Your task to perform on an android device: turn off smart reply in the gmail app Image 0: 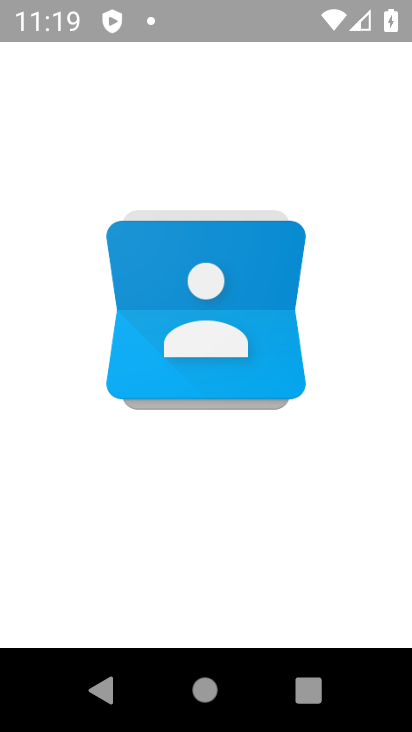
Step 0: drag from (342, 522) to (315, 366)
Your task to perform on an android device: turn off smart reply in the gmail app Image 1: 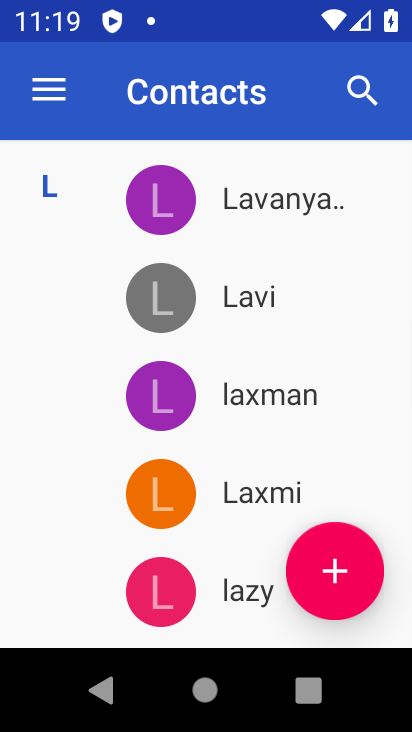
Step 1: press home button
Your task to perform on an android device: turn off smart reply in the gmail app Image 2: 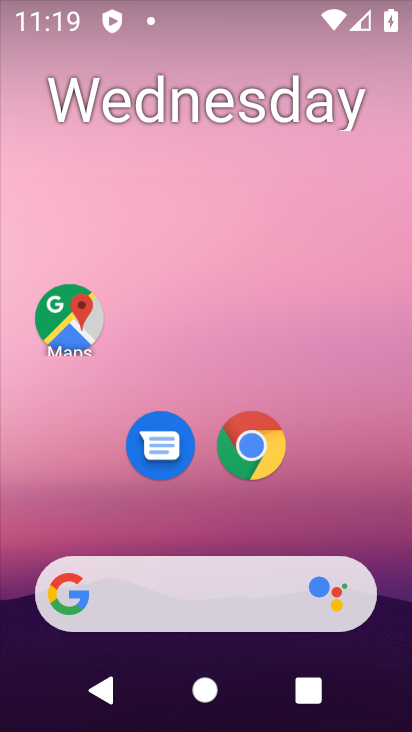
Step 2: drag from (317, 468) to (289, 186)
Your task to perform on an android device: turn off smart reply in the gmail app Image 3: 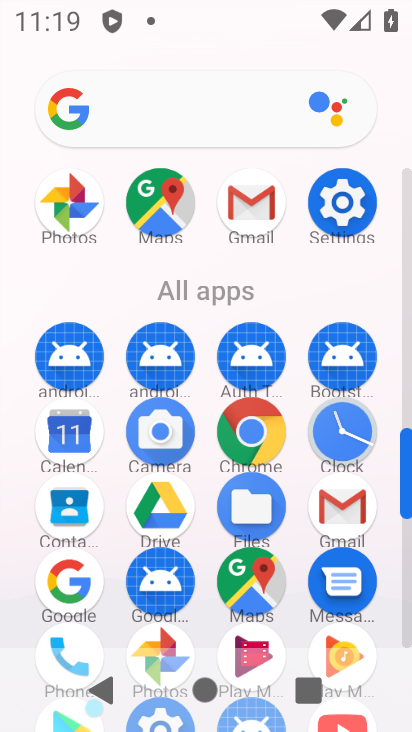
Step 3: click (352, 205)
Your task to perform on an android device: turn off smart reply in the gmail app Image 4: 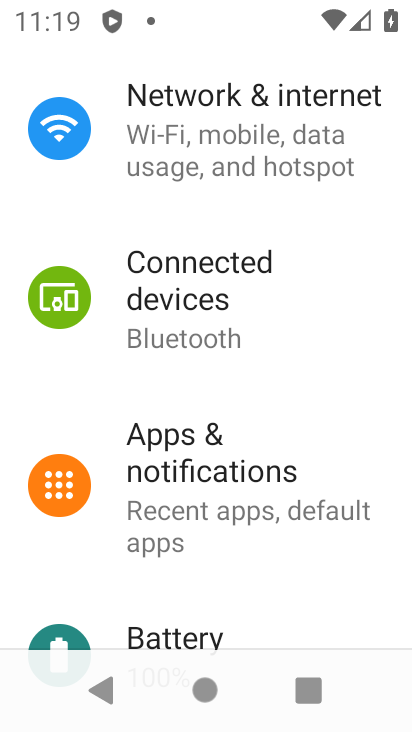
Step 4: press back button
Your task to perform on an android device: turn off smart reply in the gmail app Image 5: 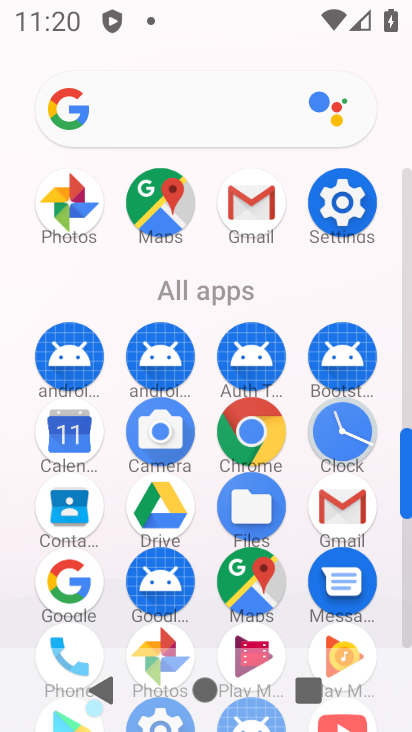
Step 5: click (333, 508)
Your task to perform on an android device: turn off smart reply in the gmail app Image 6: 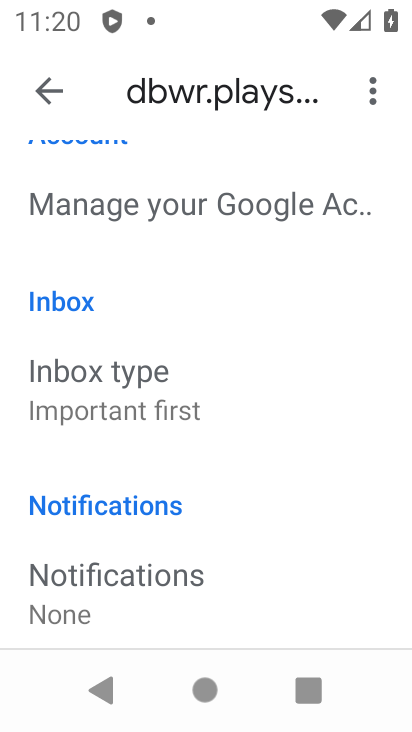
Step 6: press back button
Your task to perform on an android device: turn off smart reply in the gmail app Image 7: 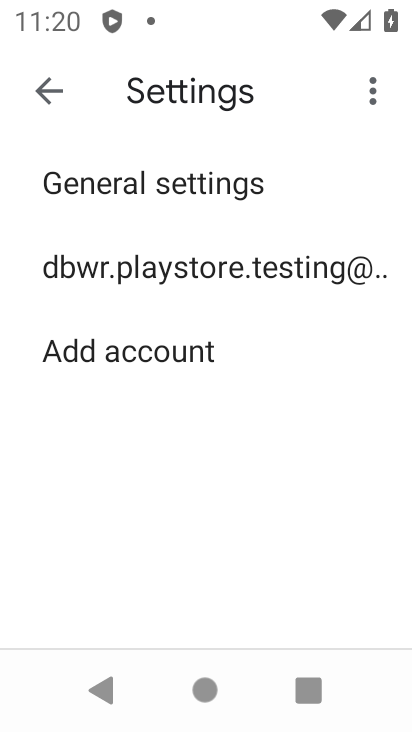
Step 7: press back button
Your task to perform on an android device: turn off smart reply in the gmail app Image 8: 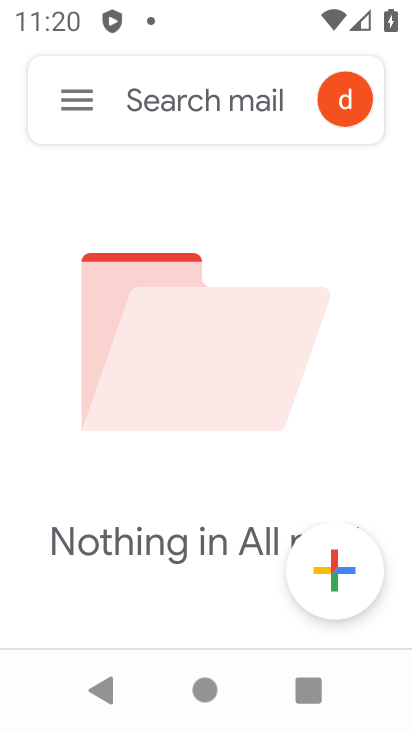
Step 8: click (82, 85)
Your task to perform on an android device: turn off smart reply in the gmail app Image 9: 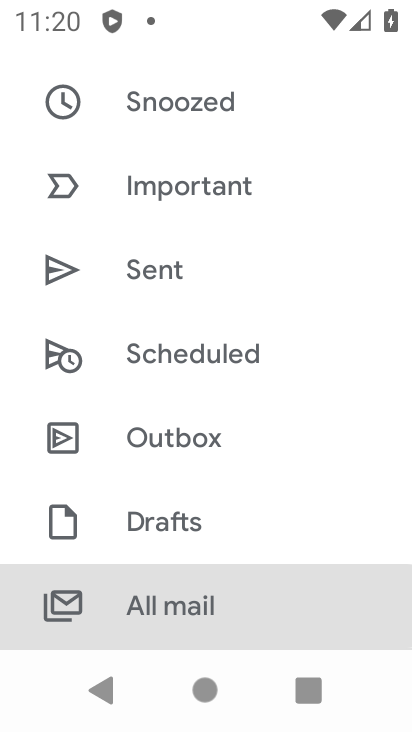
Step 9: drag from (322, 512) to (267, 189)
Your task to perform on an android device: turn off smart reply in the gmail app Image 10: 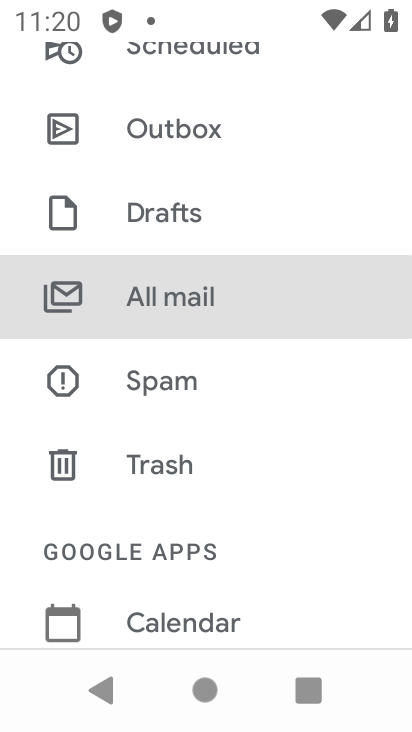
Step 10: drag from (265, 571) to (234, 97)
Your task to perform on an android device: turn off smart reply in the gmail app Image 11: 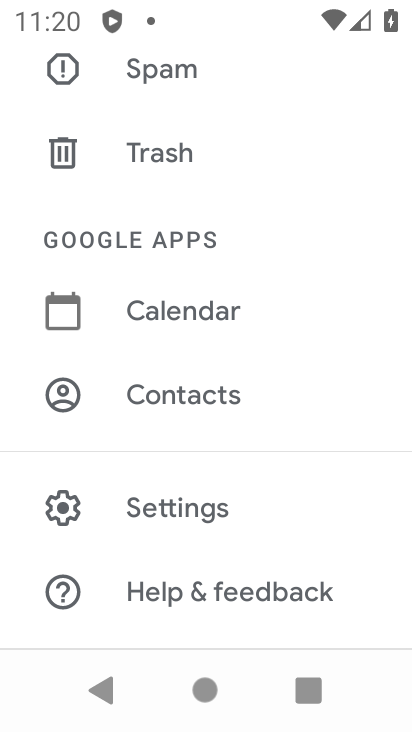
Step 11: click (161, 503)
Your task to perform on an android device: turn off smart reply in the gmail app Image 12: 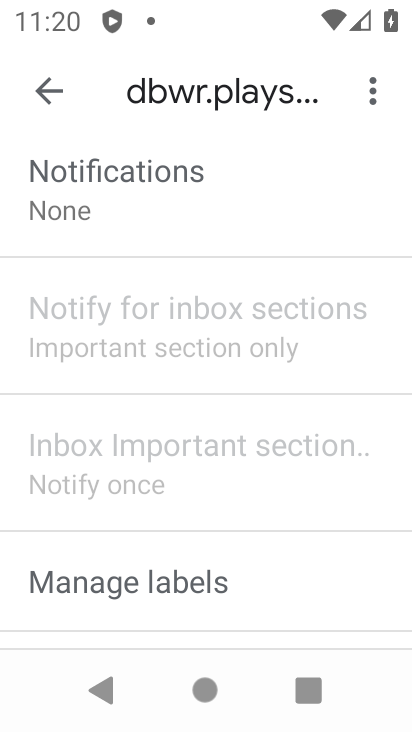
Step 12: drag from (243, 555) to (147, 147)
Your task to perform on an android device: turn off smart reply in the gmail app Image 13: 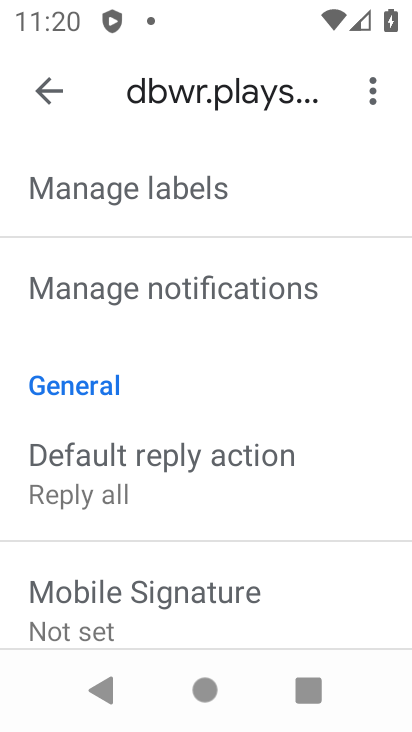
Step 13: drag from (244, 574) to (197, 175)
Your task to perform on an android device: turn off smart reply in the gmail app Image 14: 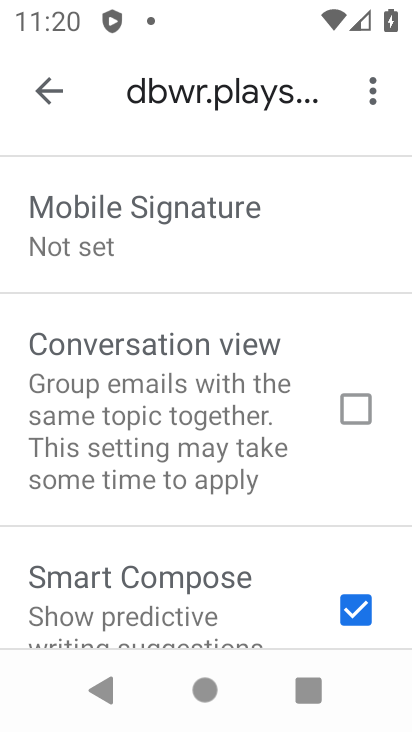
Step 14: drag from (185, 585) to (141, 187)
Your task to perform on an android device: turn off smart reply in the gmail app Image 15: 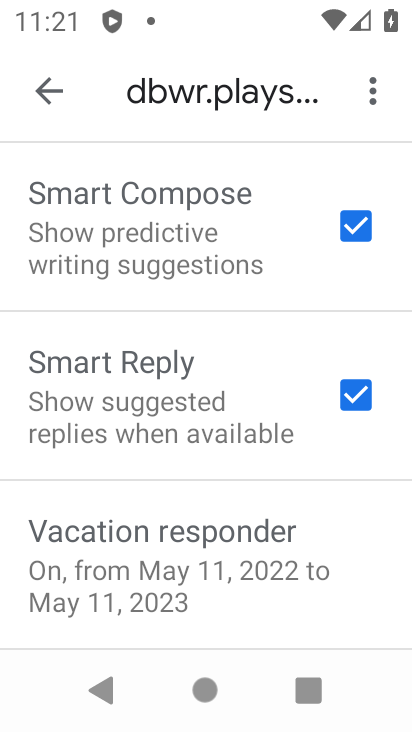
Step 15: drag from (264, 621) to (241, 236)
Your task to perform on an android device: turn off smart reply in the gmail app Image 16: 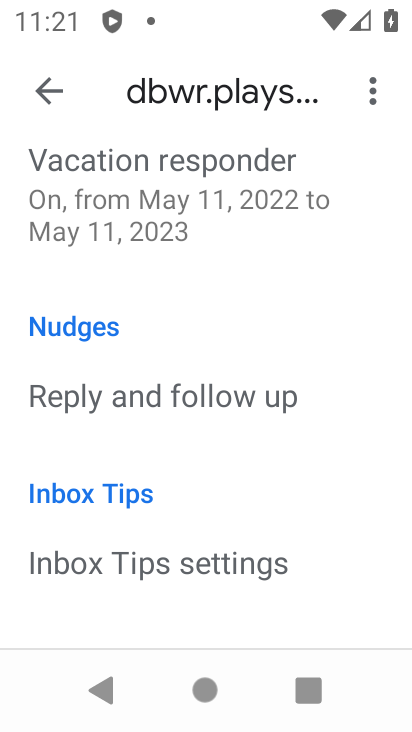
Step 16: drag from (241, 230) to (310, 592)
Your task to perform on an android device: turn off smart reply in the gmail app Image 17: 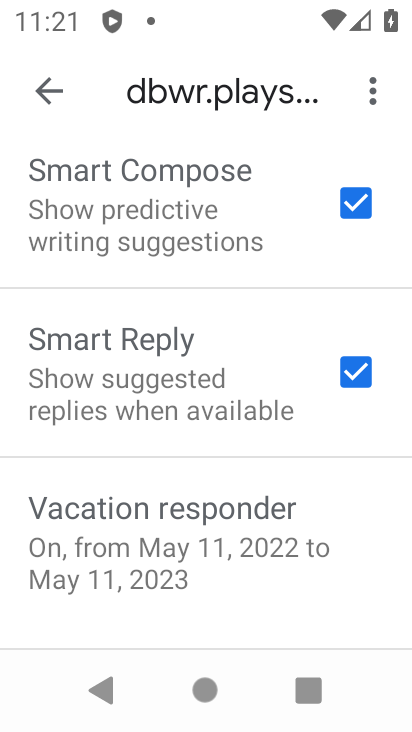
Step 17: click (343, 371)
Your task to perform on an android device: turn off smart reply in the gmail app Image 18: 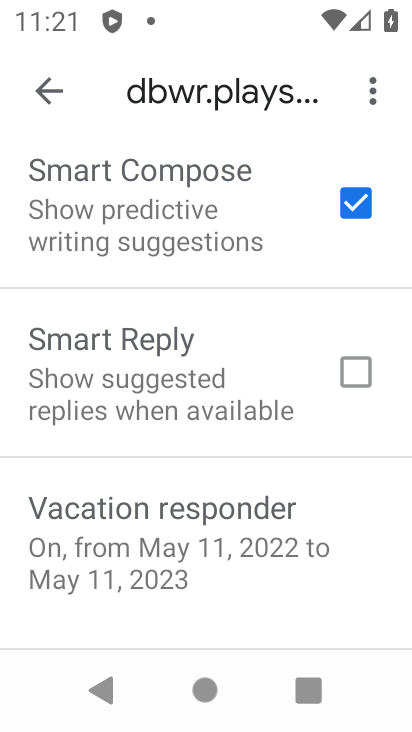
Step 18: task complete